Your task to perform on an android device: See recent photos Image 0: 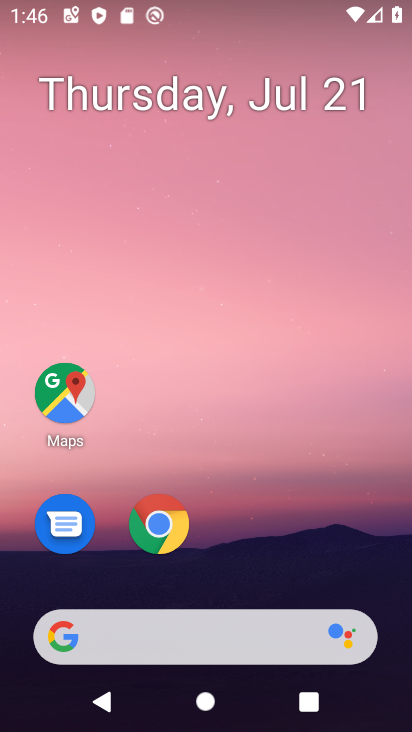
Step 0: drag from (270, 560) to (270, 41)
Your task to perform on an android device: See recent photos Image 1: 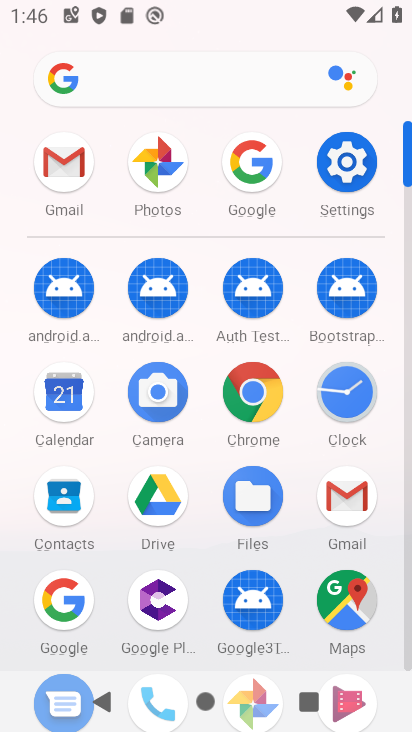
Step 1: click (171, 157)
Your task to perform on an android device: See recent photos Image 2: 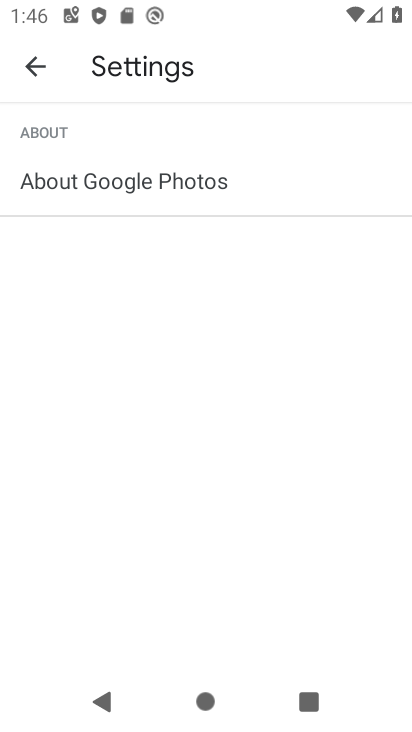
Step 2: click (35, 62)
Your task to perform on an android device: See recent photos Image 3: 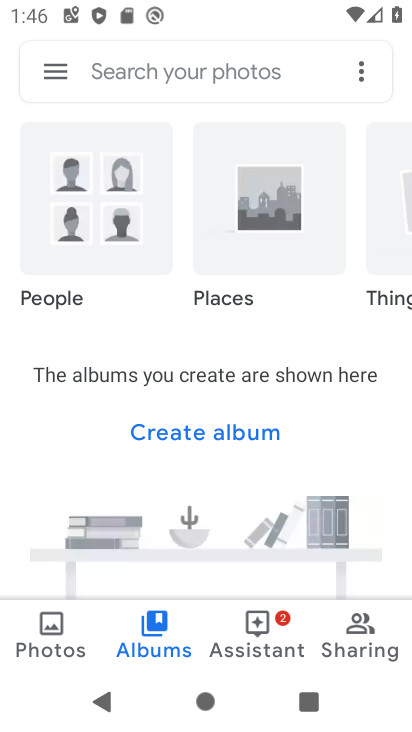
Step 3: click (54, 627)
Your task to perform on an android device: See recent photos Image 4: 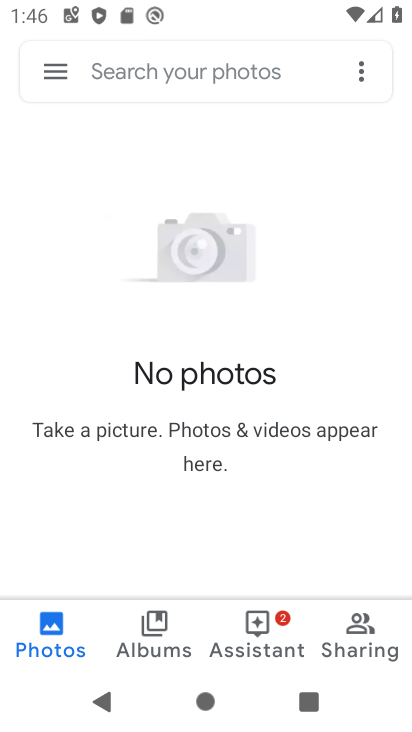
Step 4: task complete